Your task to perform on an android device: Open wifi settings Image 0: 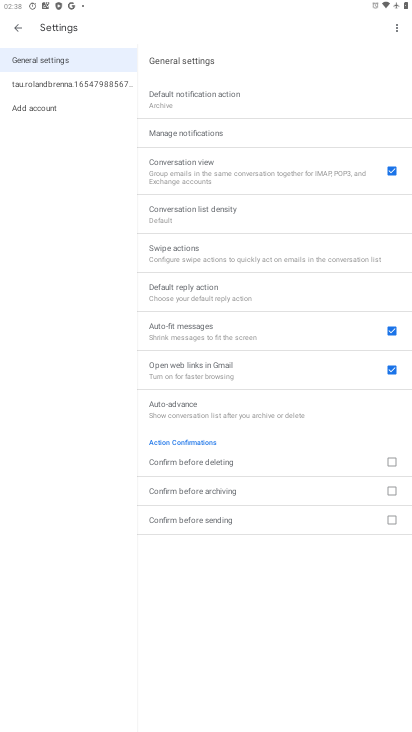
Step 0: press home button
Your task to perform on an android device: Open wifi settings Image 1: 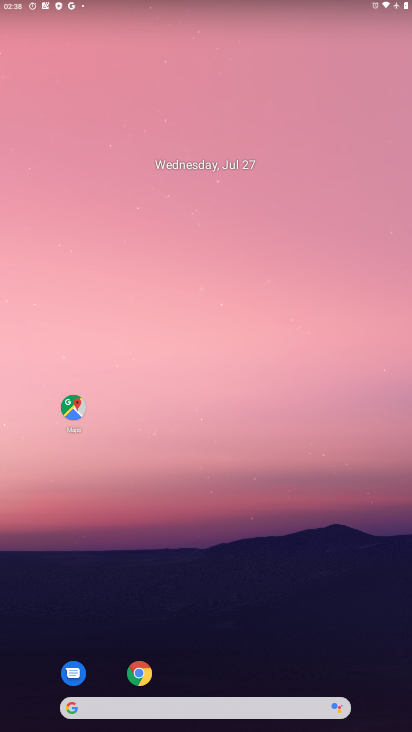
Step 1: drag from (219, 667) to (237, 44)
Your task to perform on an android device: Open wifi settings Image 2: 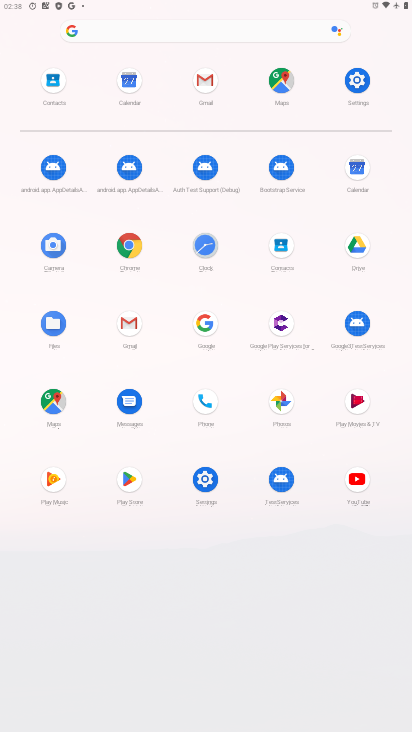
Step 2: click (359, 86)
Your task to perform on an android device: Open wifi settings Image 3: 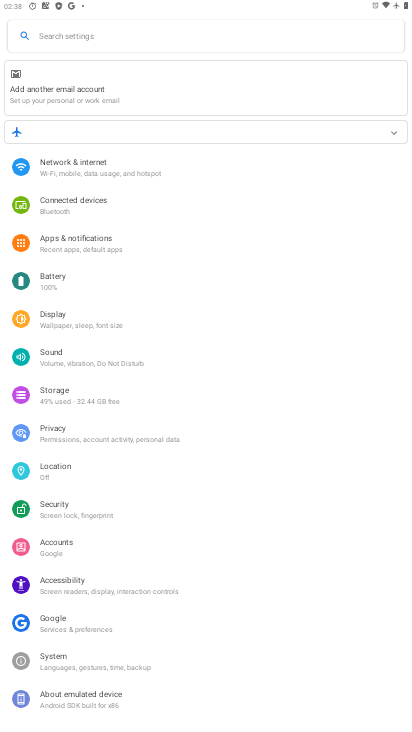
Step 3: click (61, 170)
Your task to perform on an android device: Open wifi settings Image 4: 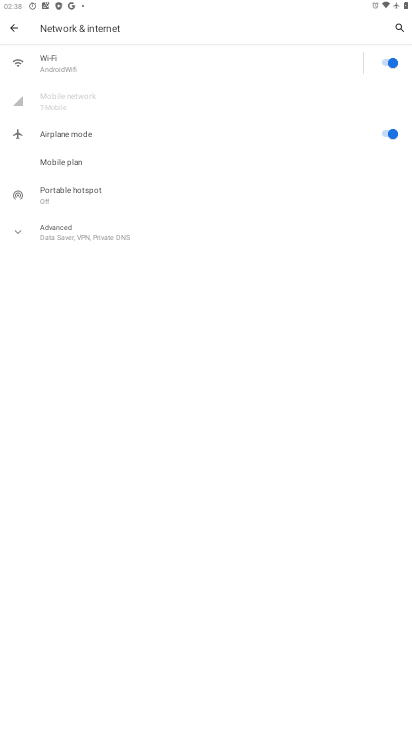
Step 4: click (15, 59)
Your task to perform on an android device: Open wifi settings Image 5: 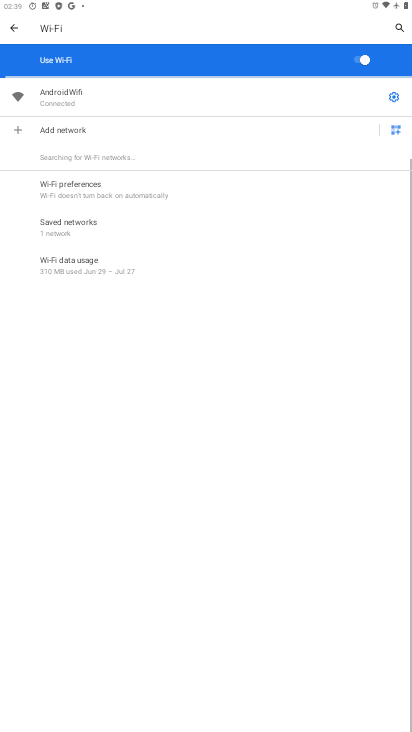
Step 5: task complete